Your task to perform on an android device: turn off translation in the chrome app Image 0: 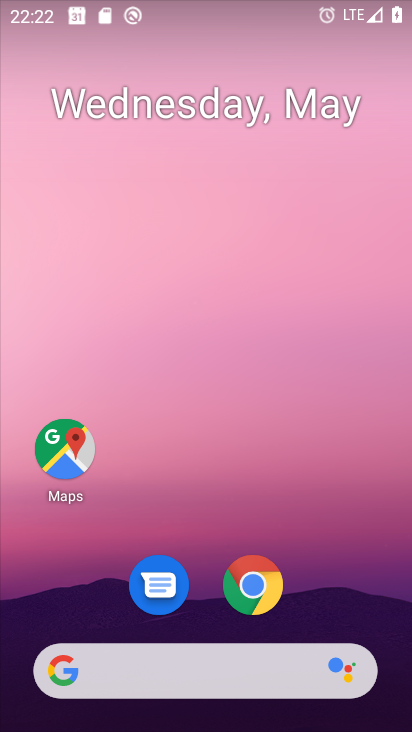
Step 0: click (272, 582)
Your task to perform on an android device: turn off translation in the chrome app Image 1: 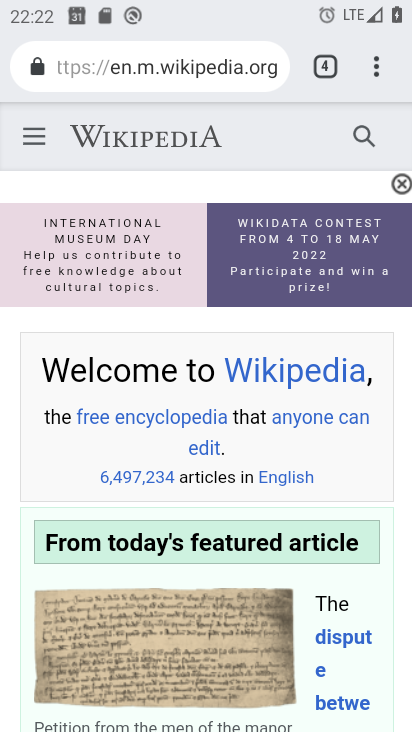
Step 1: click (374, 65)
Your task to perform on an android device: turn off translation in the chrome app Image 2: 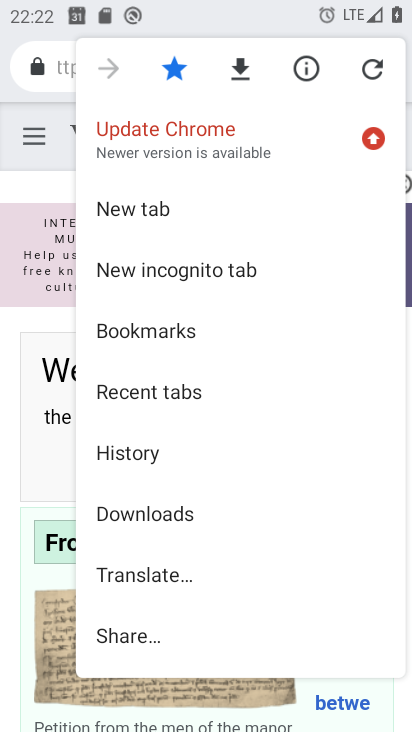
Step 2: drag from (196, 469) to (242, 143)
Your task to perform on an android device: turn off translation in the chrome app Image 3: 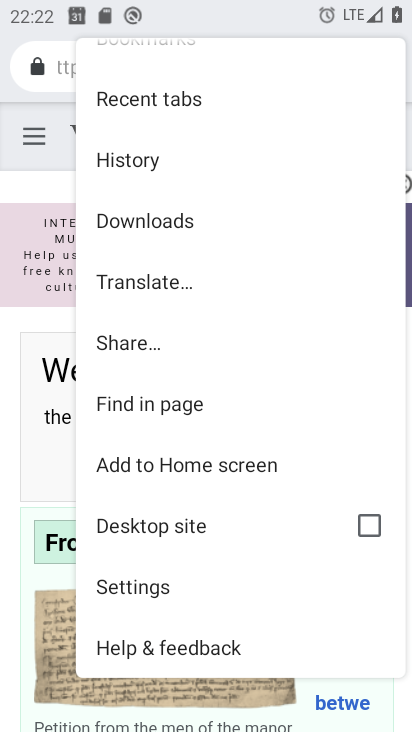
Step 3: click (180, 589)
Your task to perform on an android device: turn off translation in the chrome app Image 4: 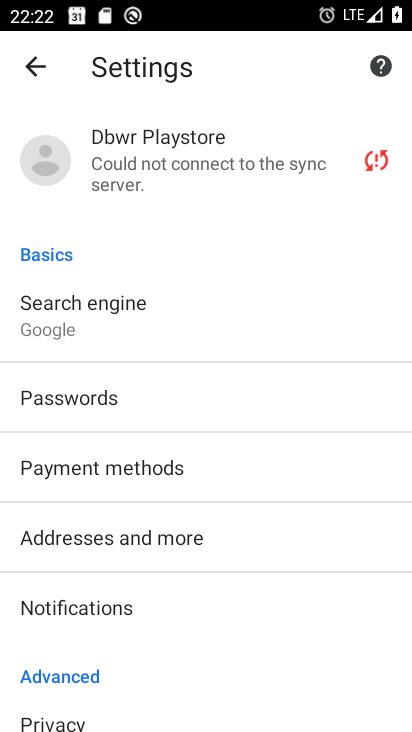
Step 4: drag from (284, 540) to (288, 185)
Your task to perform on an android device: turn off translation in the chrome app Image 5: 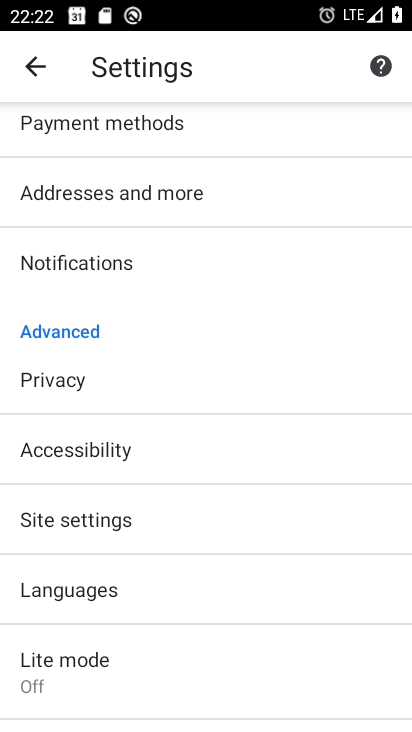
Step 5: click (254, 601)
Your task to perform on an android device: turn off translation in the chrome app Image 6: 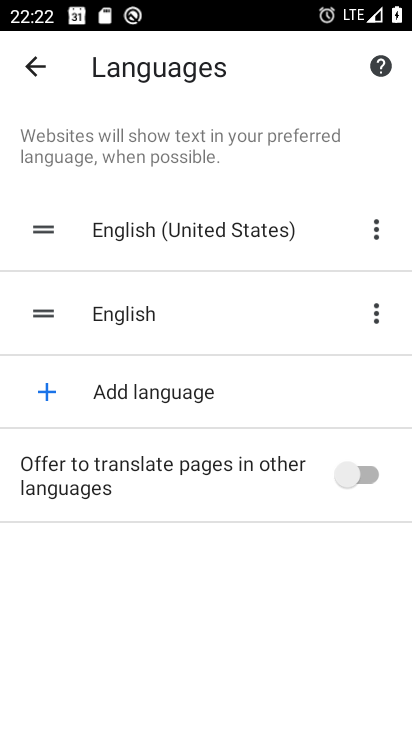
Step 6: task complete